Your task to perform on an android device: uninstall "Google Photos" Image 0: 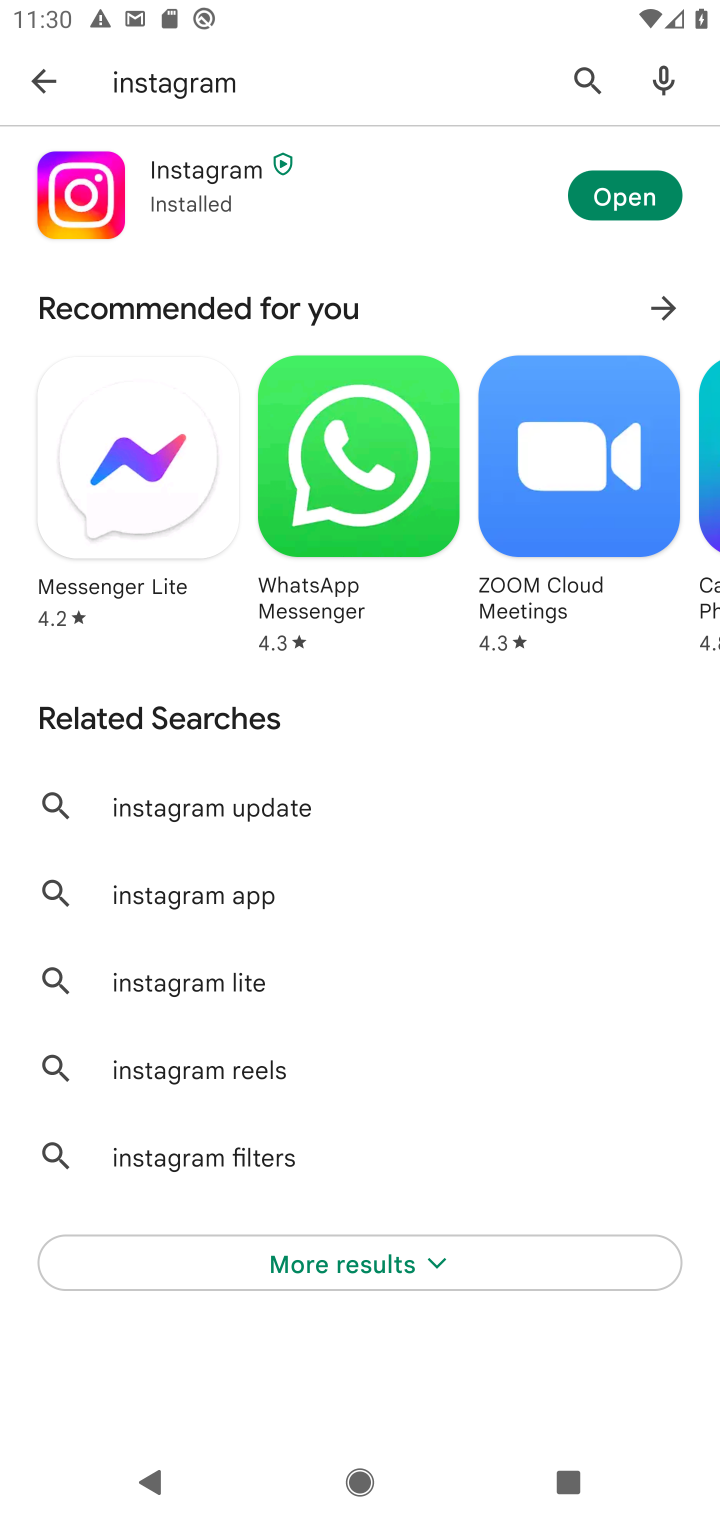
Step 0: click (583, 73)
Your task to perform on an android device: uninstall "Google Photos" Image 1: 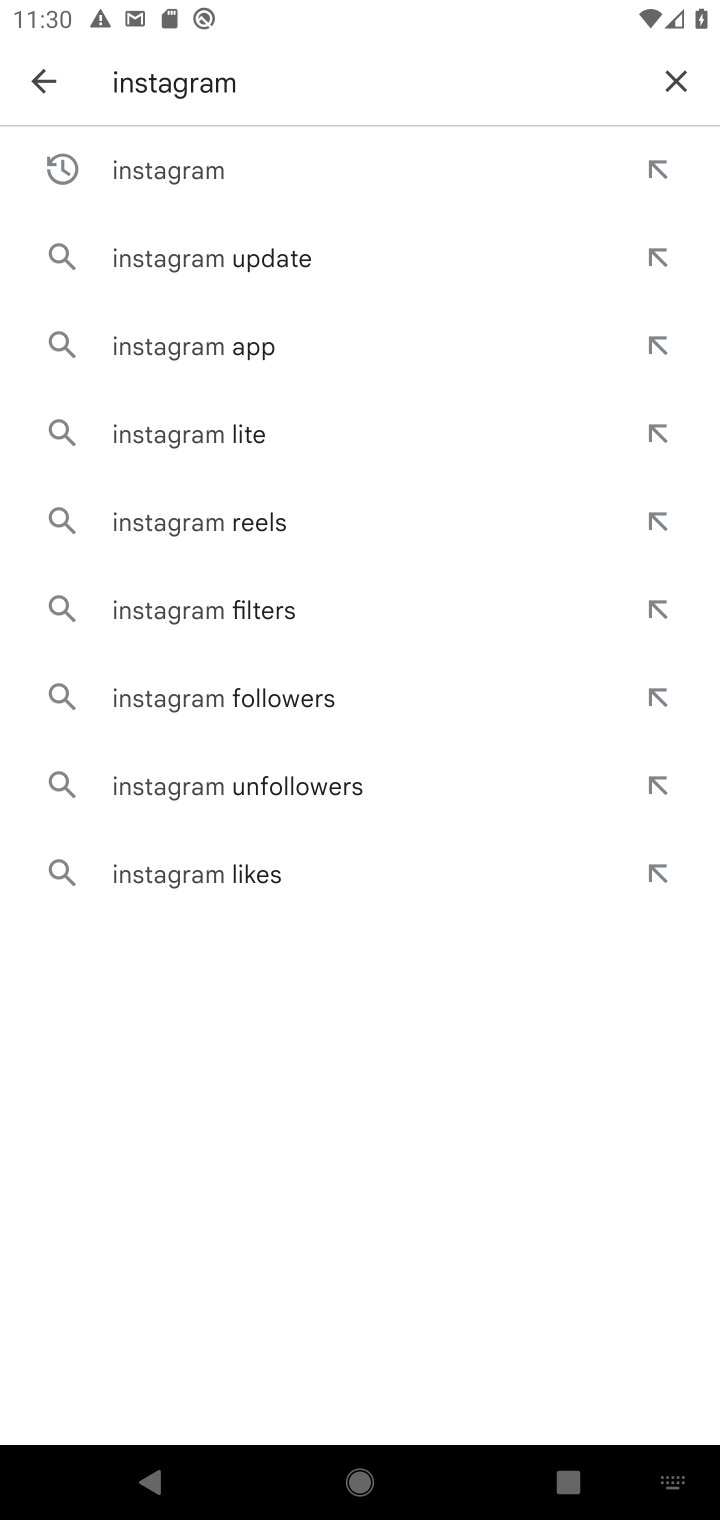
Step 1: click (666, 69)
Your task to perform on an android device: uninstall "Google Photos" Image 2: 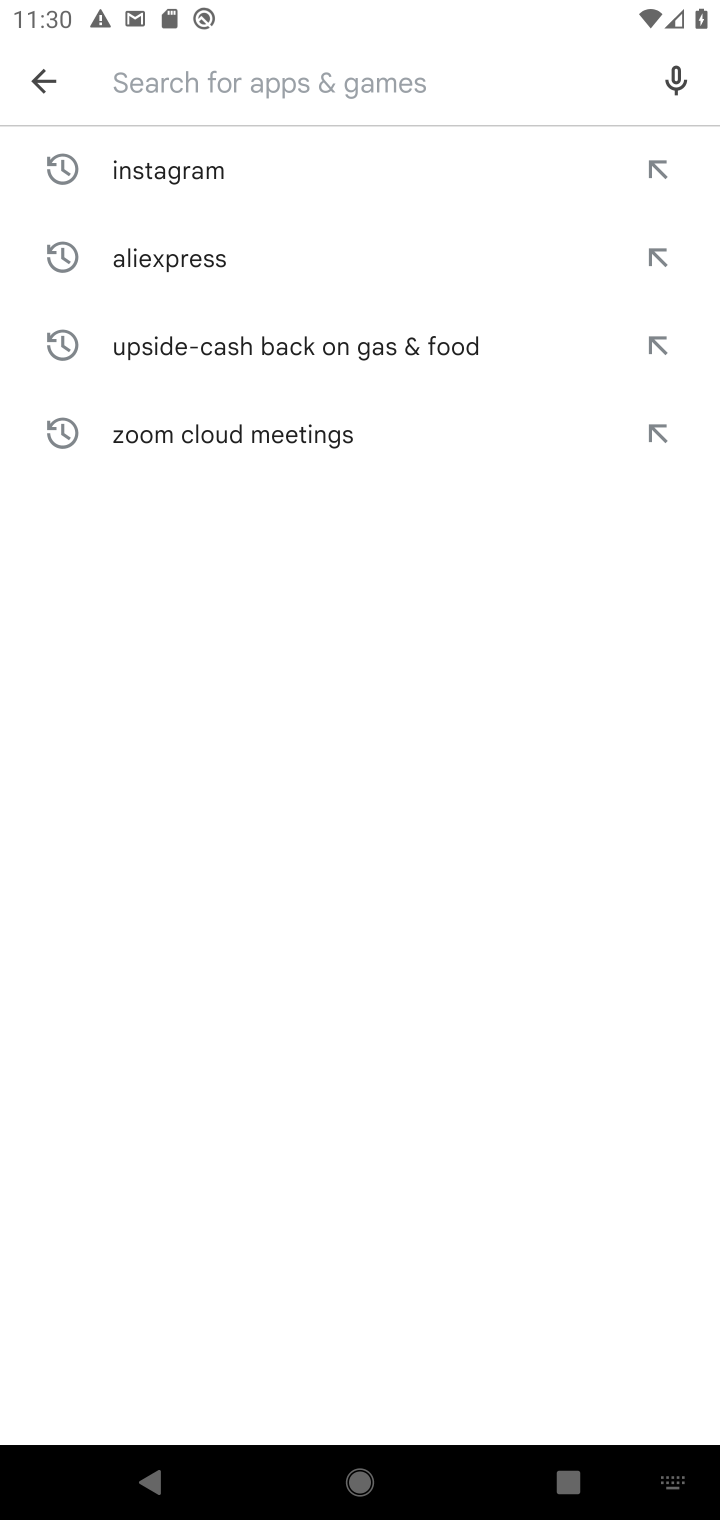
Step 2: type "Google Photos"
Your task to perform on an android device: uninstall "Google Photos" Image 3: 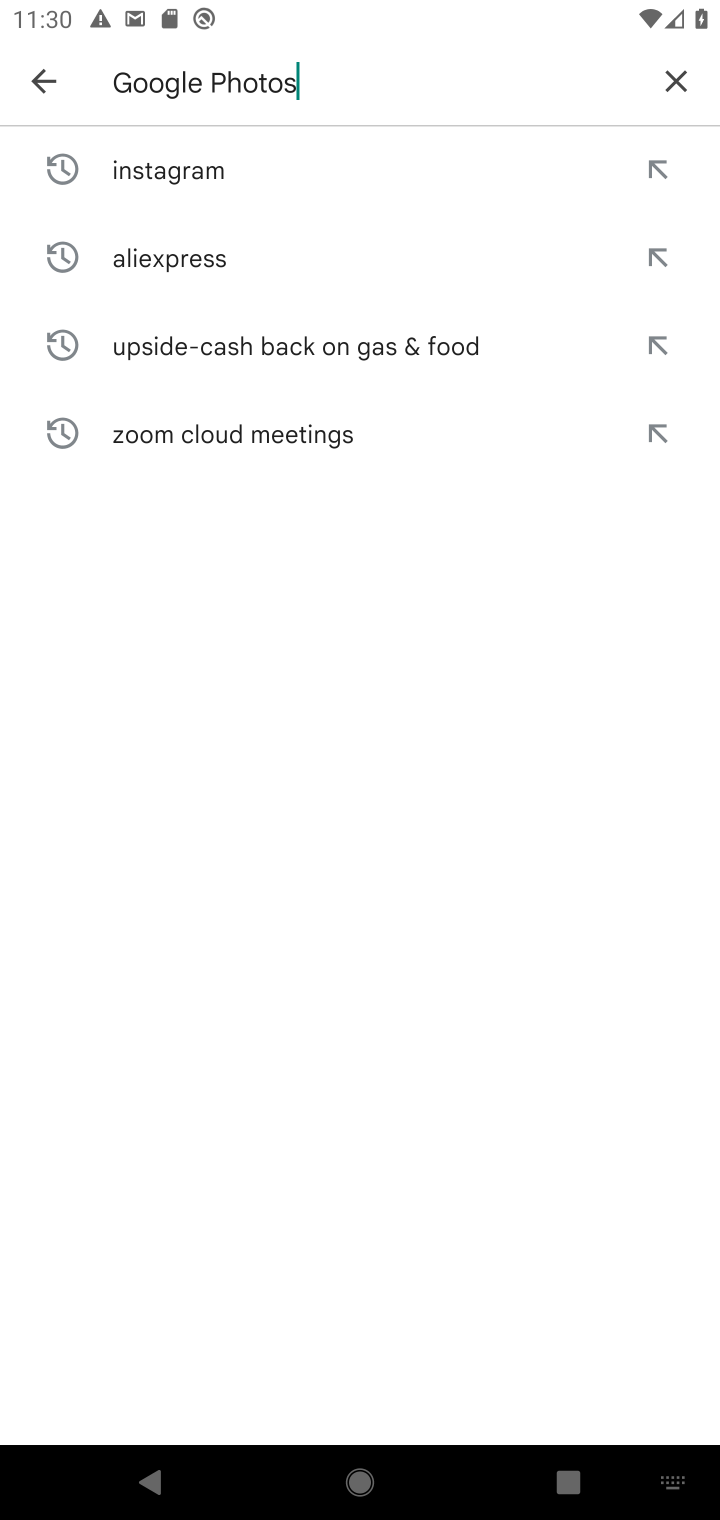
Step 3: type ""
Your task to perform on an android device: uninstall "Google Photos" Image 4: 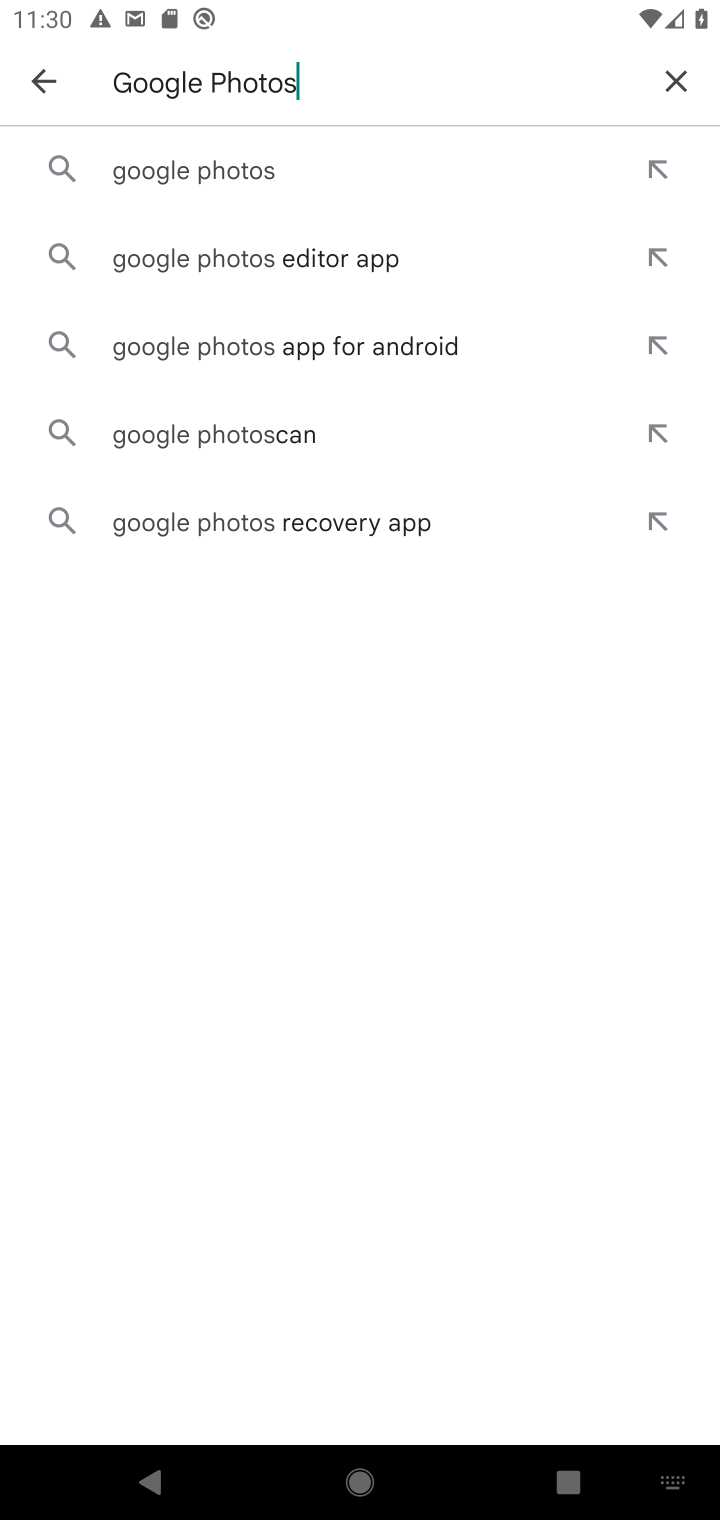
Step 4: click (247, 173)
Your task to perform on an android device: uninstall "Google Photos" Image 5: 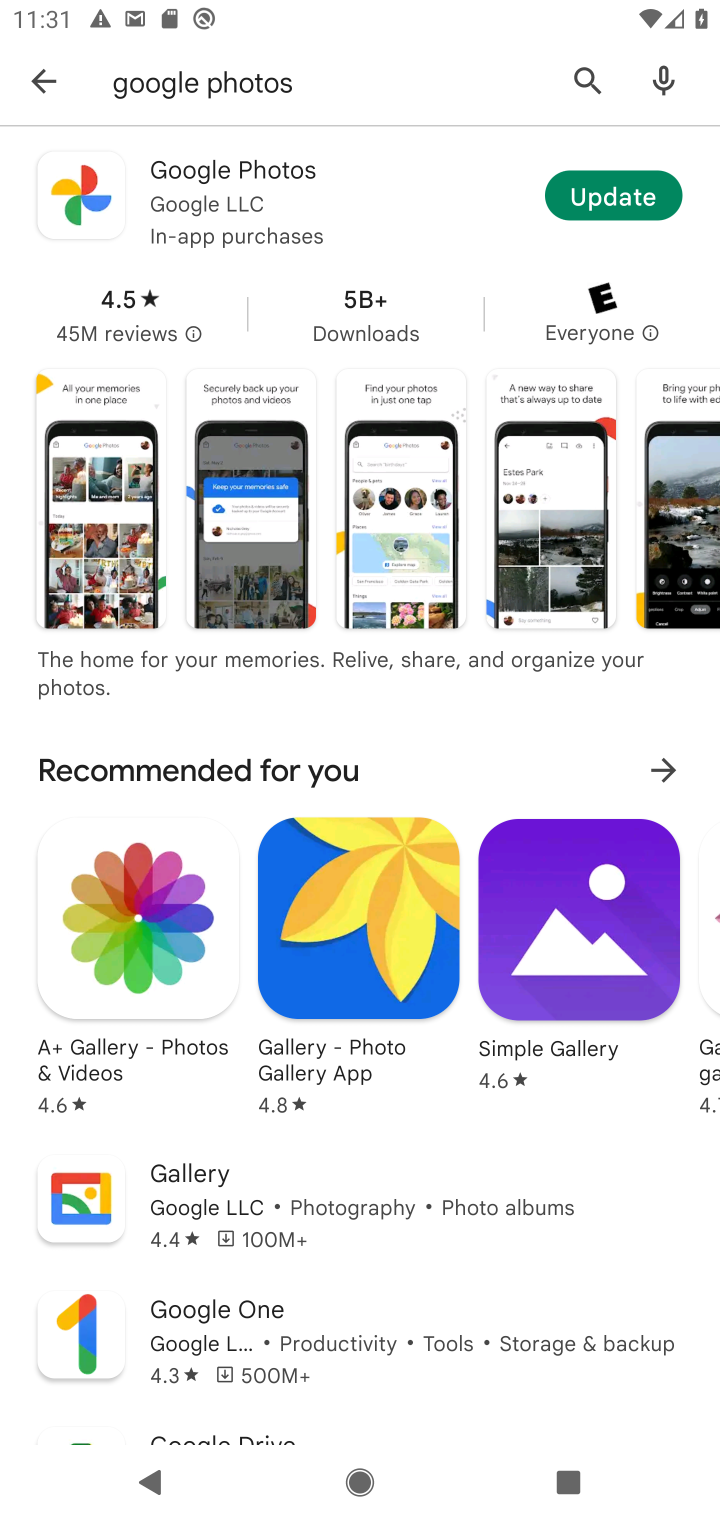
Step 5: click (247, 185)
Your task to perform on an android device: uninstall "Google Photos" Image 6: 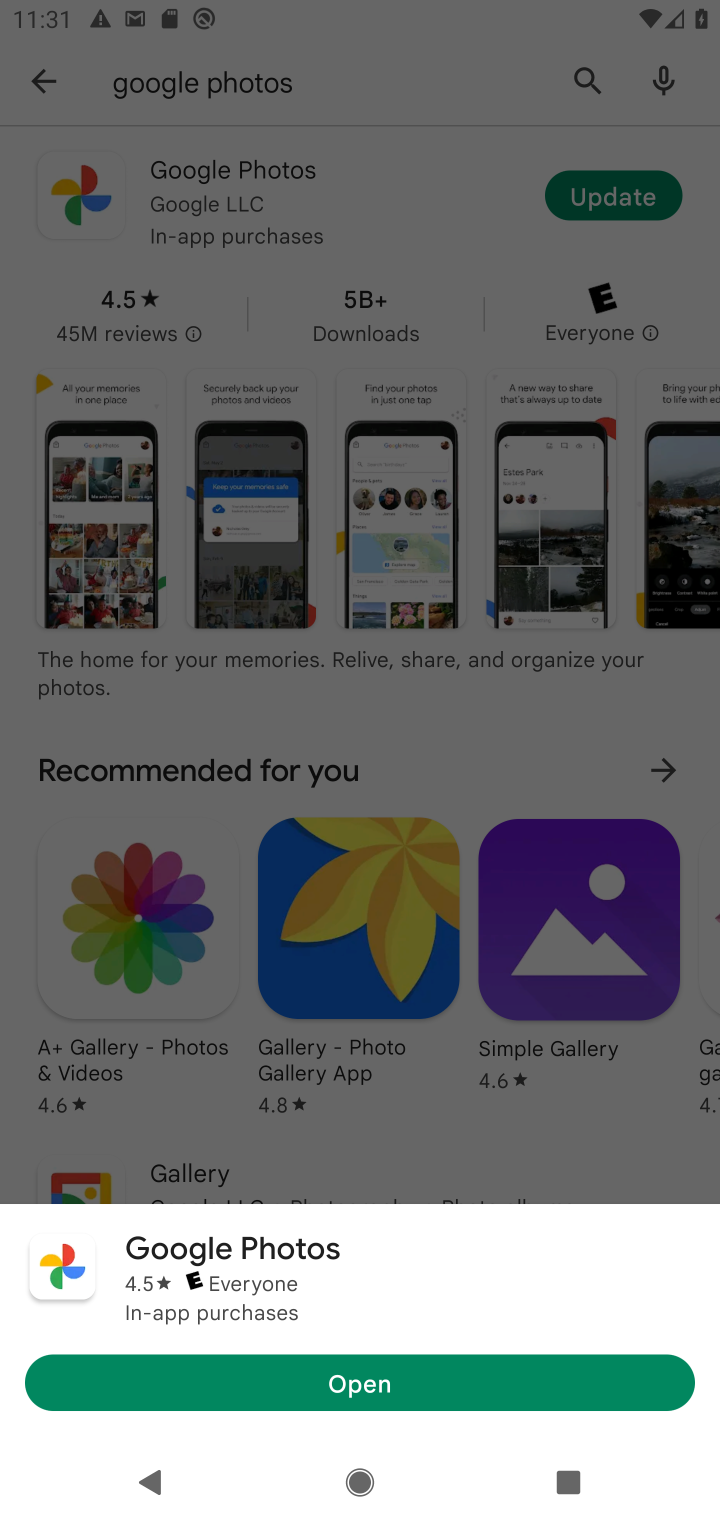
Step 6: click (459, 255)
Your task to perform on an android device: uninstall "Google Photos" Image 7: 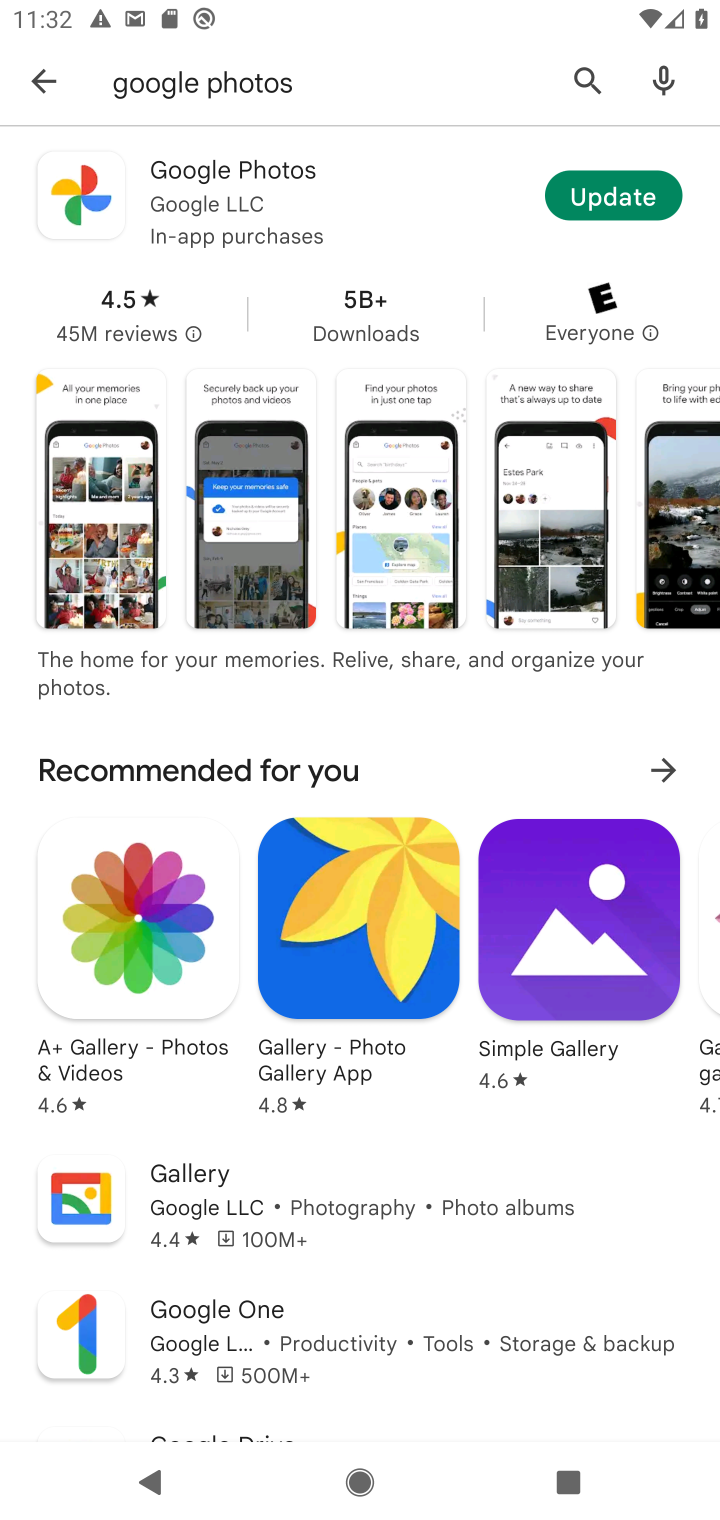
Step 7: click (232, 197)
Your task to perform on an android device: uninstall "Google Photos" Image 8: 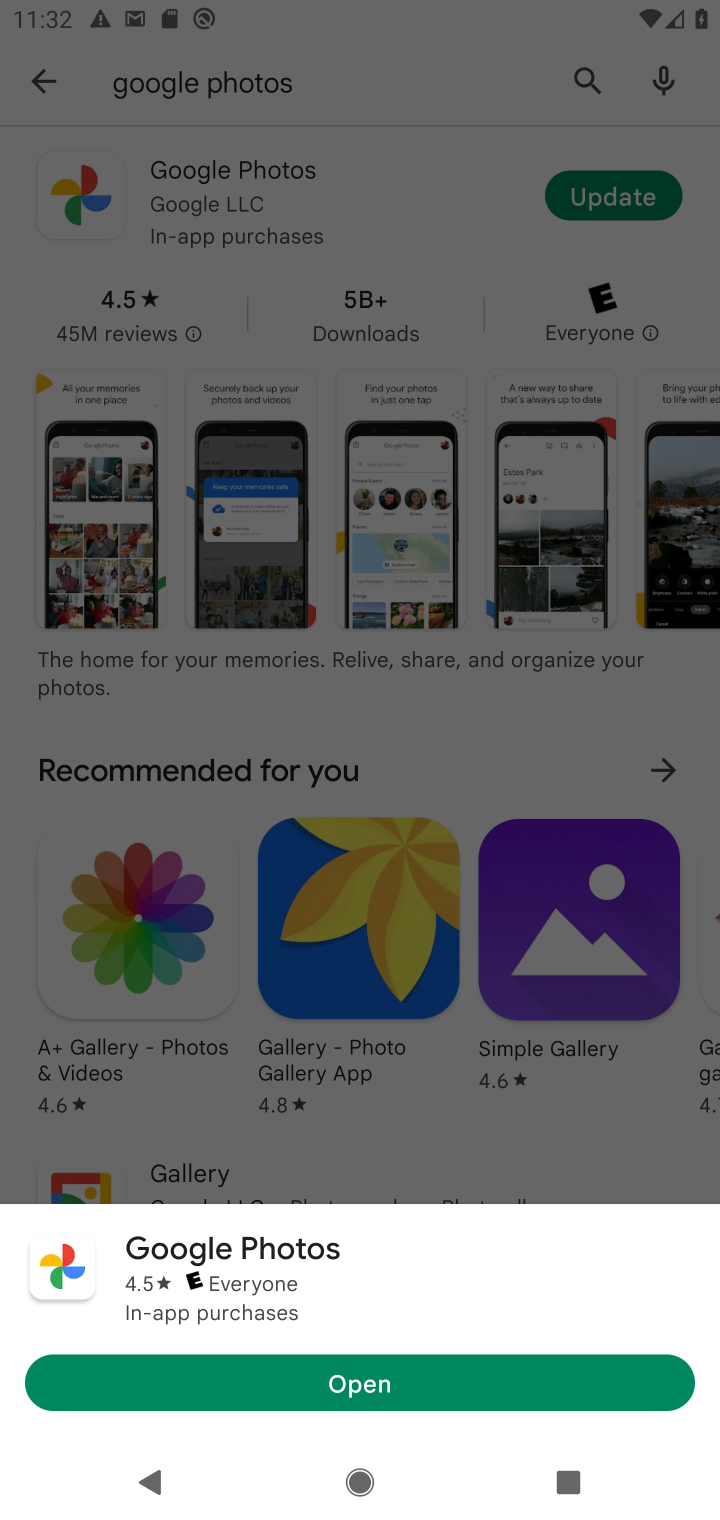
Step 8: task complete